Your task to perform on an android device: check data usage Image 0: 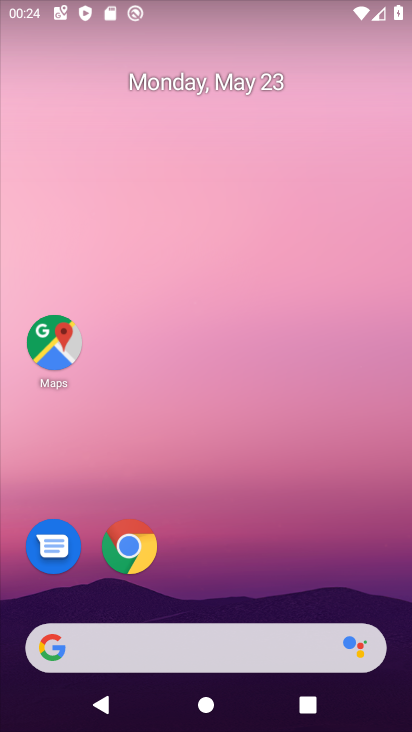
Step 0: drag from (16, 527) to (214, 136)
Your task to perform on an android device: check data usage Image 1: 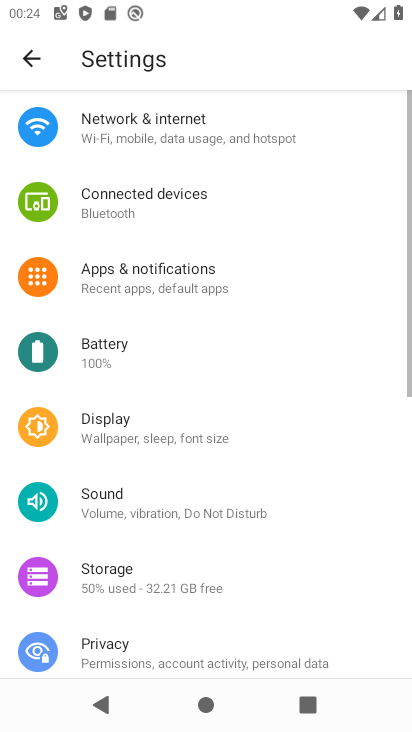
Step 1: click (173, 132)
Your task to perform on an android device: check data usage Image 2: 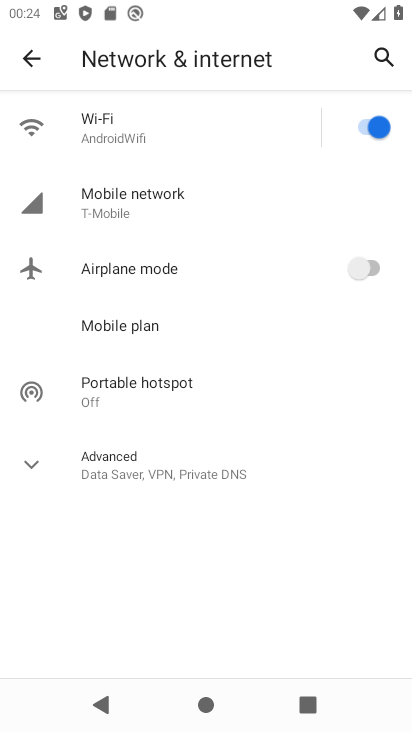
Step 2: click (100, 206)
Your task to perform on an android device: check data usage Image 3: 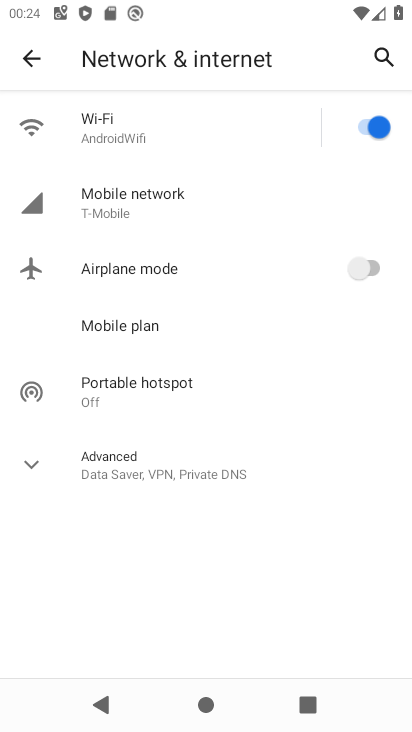
Step 3: task complete